Your task to perform on an android device: check battery use Image 0: 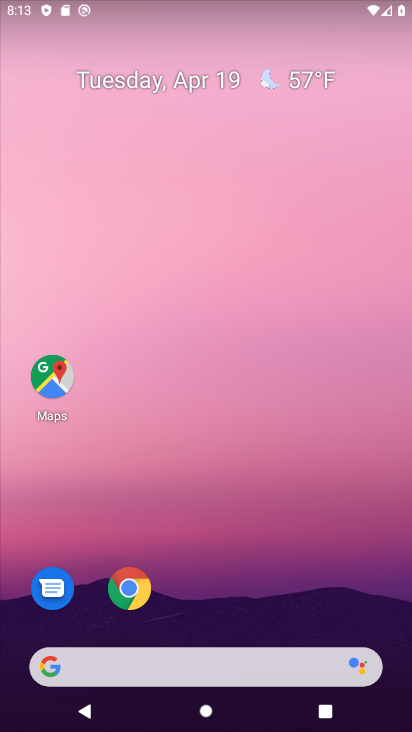
Step 0: drag from (274, 597) to (373, 43)
Your task to perform on an android device: check battery use Image 1: 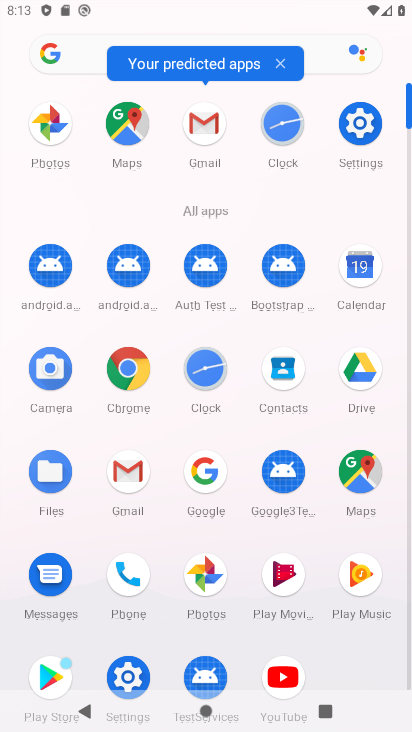
Step 1: click (355, 140)
Your task to perform on an android device: check battery use Image 2: 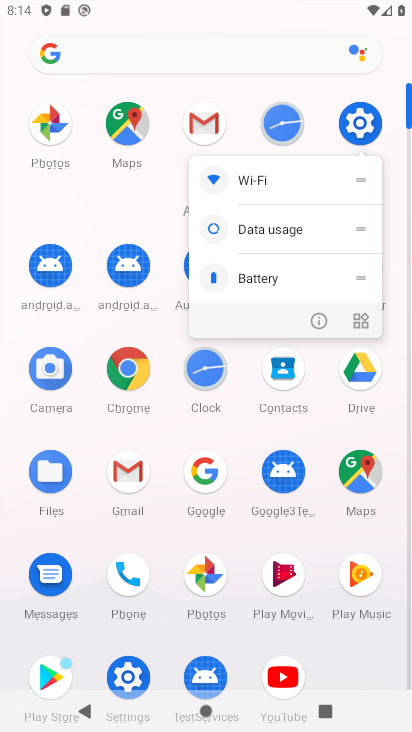
Step 2: click (355, 140)
Your task to perform on an android device: check battery use Image 3: 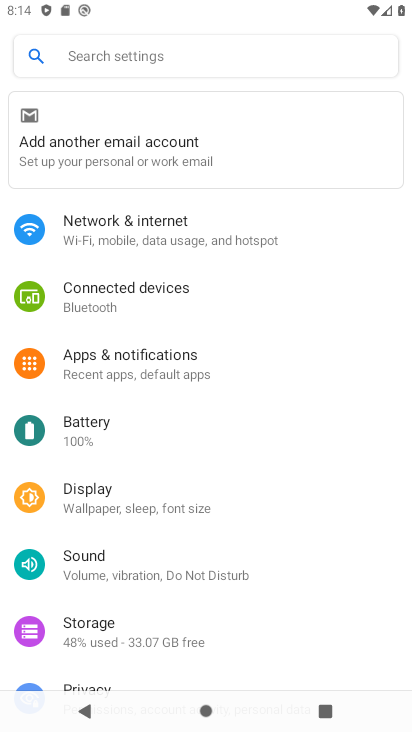
Step 3: click (112, 427)
Your task to perform on an android device: check battery use Image 4: 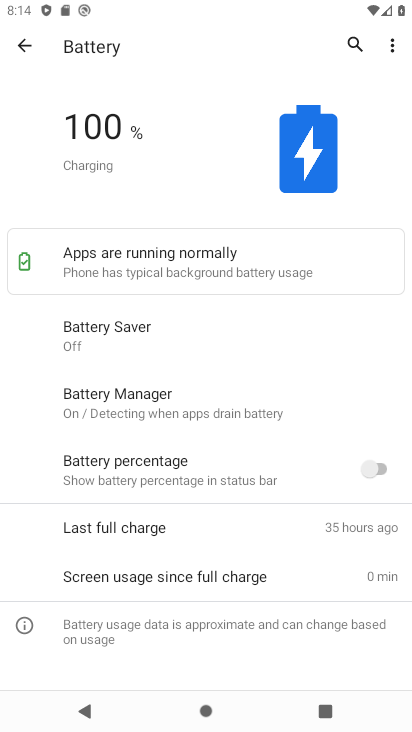
Step 4: click (389, 46)
Your task to perform on an android device: check battery use Image 5: 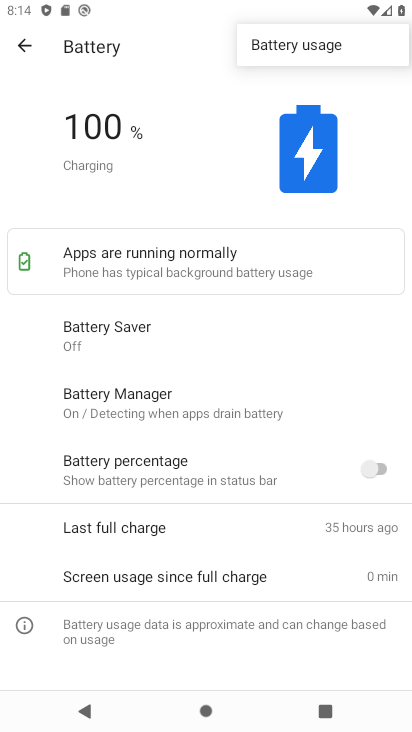
Step 5: click (338, 38)
Your task to perform on an android device: check battery use Image 6: 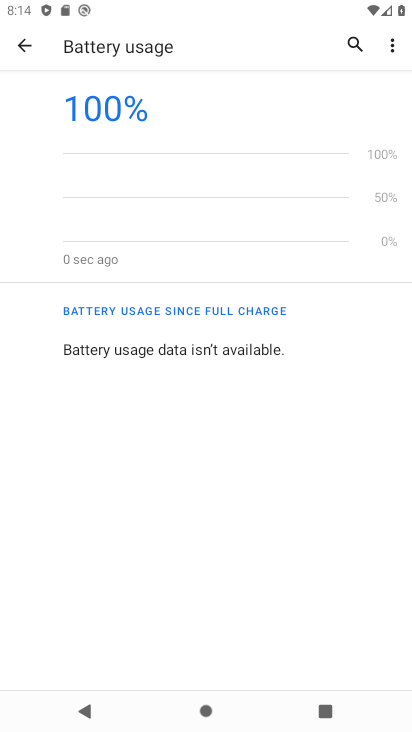
Step 6: task complete